Your task to perform on an android device: Search for the new ikea dresser Image 0: 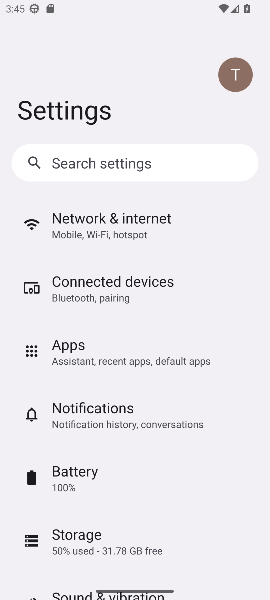
Step 0: press home button
Your task to perform on an android device: Search for the new ikea dresser Image 1: 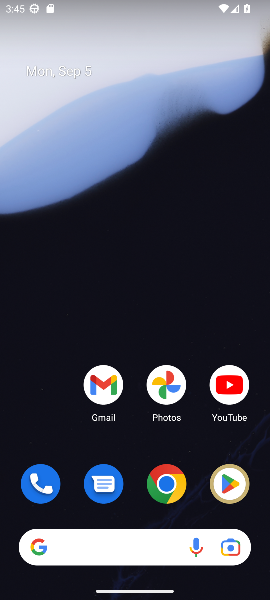
Step 1: click (172, 489)
Your task to perform on an android device: Search for the new ikea dresser Image 2: 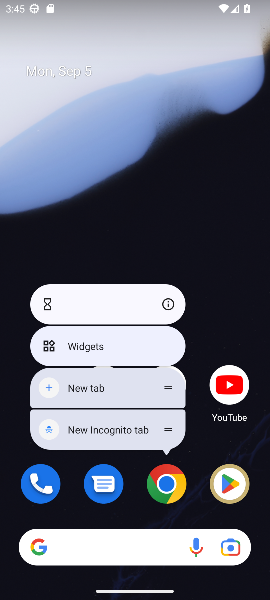
Step 2: click (145, 486)
Your task to perform on an android device: Search for the new ikea dresser Image 3: 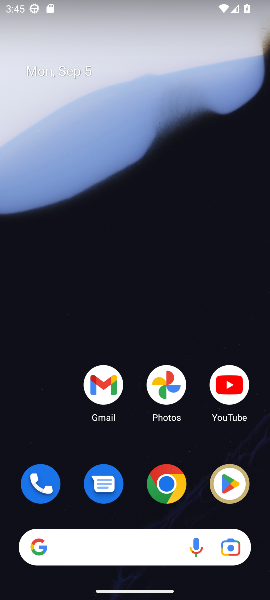
Step 3: click (160, 490)
Your task to perform on an android device: Search for the new ikea dresser Image 4: 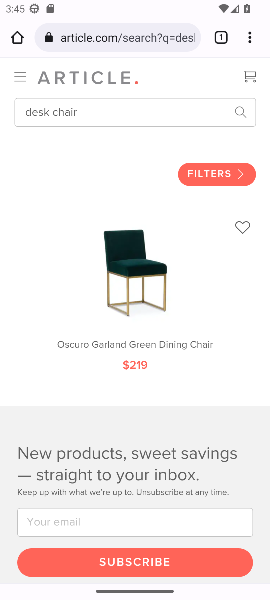
Step 4: click (153, 30)
Your task to perform on an android device: Search for the new ikea dresser Image 5: 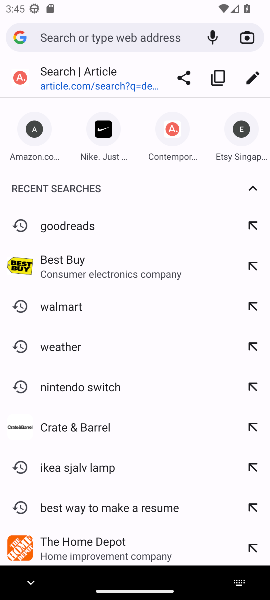
Step 5: type "new ikea dresser"
Your task to perform on an android device: Search for the new ikea dresser Image 6: 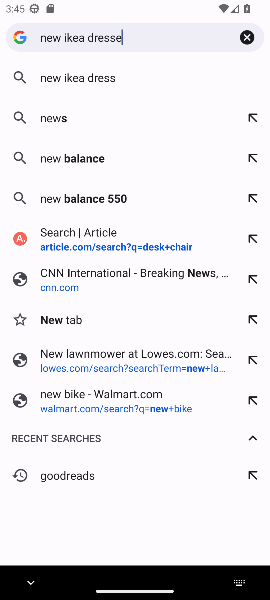
Step 6: press enter
Your task to perform on an android device: Search for the new ikea dresser Image 7: 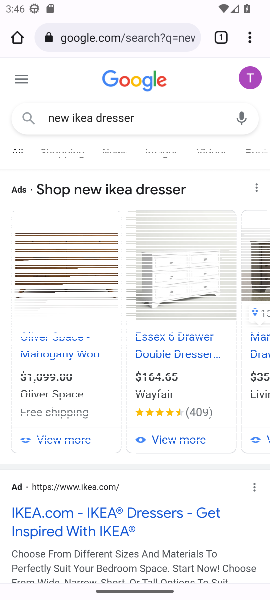
Step 7: drag from (171, 446) to (190, 386)
Your task to perform on an android device: Search for the new ikea dresser Image 8: 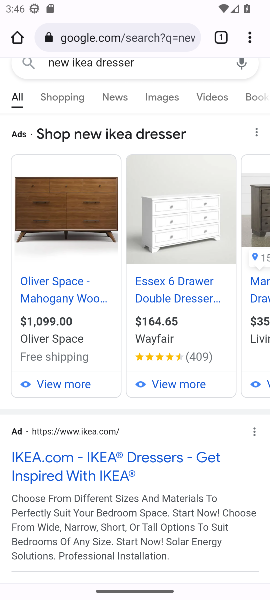
Step 8: click (145, 457)
Your task to perform on an android device: Search for the new ikea dresser Image 9: 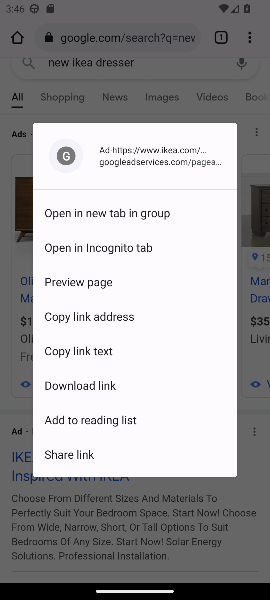
Step 9: click (256, 480)
Your task to perform on an android device: Search for the new ikea dresser Image 10: 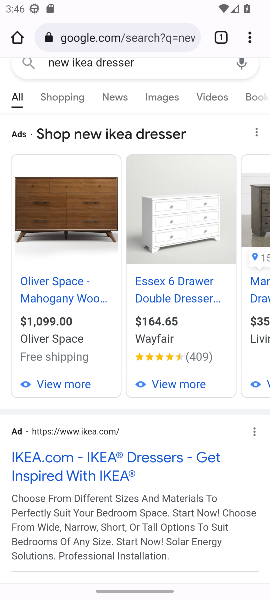
Step 10: click (99, 452)
Your task to perform on an android device: Search for the new ikea dresser Image 11: 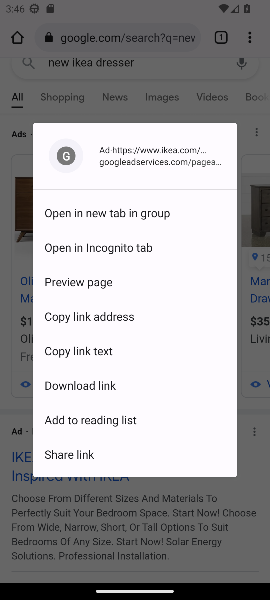
Step 11: click (248, 493)
Your task to perform on an android device: Search for the new ikea dresser Image 12: 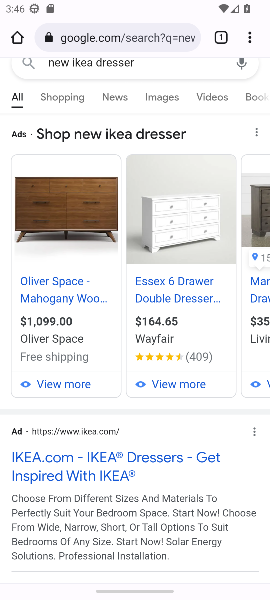
Step 12: drag from (77, 545) to (176, 369)
Your task to perform on an android device: Search for the new ikea dresser Image 13: 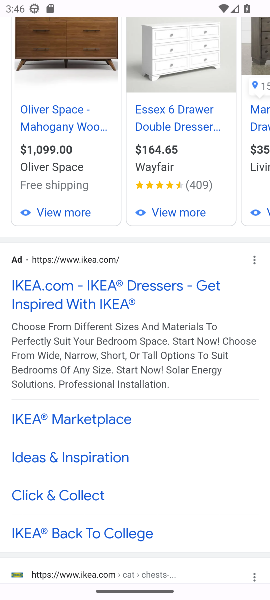
Step 13: click (50, 287)
Your task to perform on an android device: Search for the new ikea dresser Image 14: 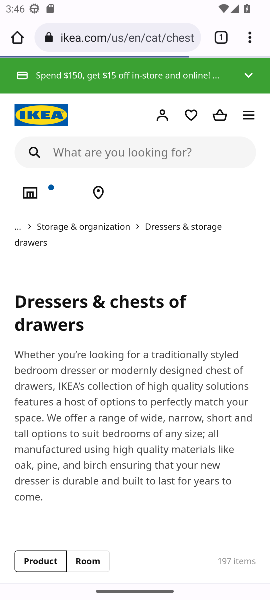
Step 14: drag from (120, 485) to (192, 154)
Your task to perform on an android device: Search for the new ikea dresser Image 15: 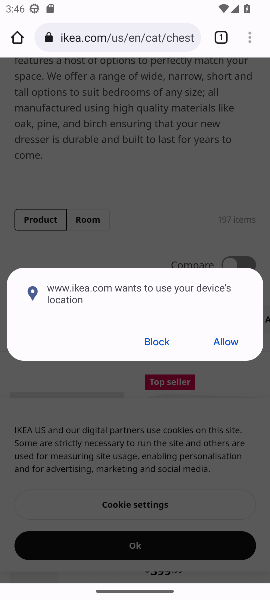
Step 15: click (155, 345)
Your task to perform on an android device: Search for the new ikea dresser Image 16: 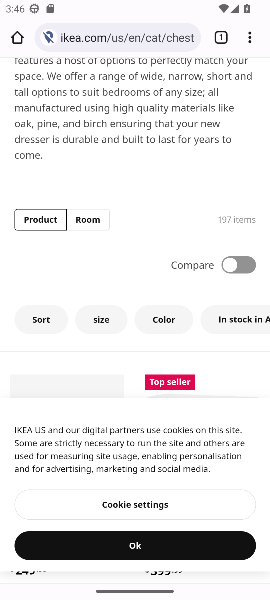
Step 16: click (149, 548)
Your task to perform on an android device: Search for the new ikea dresser Image 17: 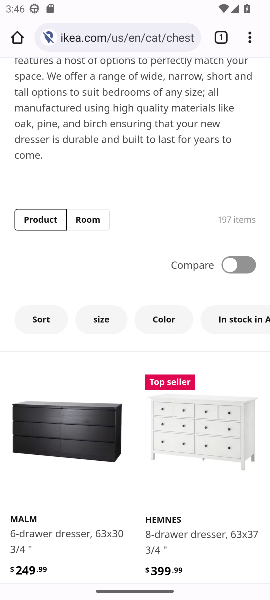
Step 17: task complete